Your task to perform on an android device: Go to Google maps Image 0: 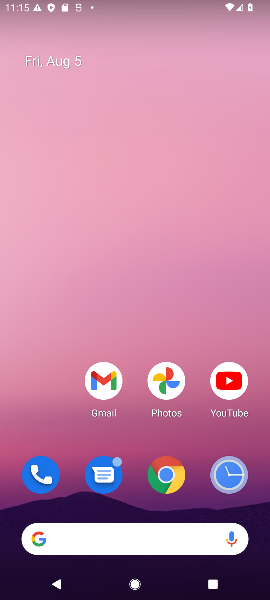
Step 0: drag from (119, 519) to (161, 119)
Your task to perform on an android device: Go to Google maps Image 1: 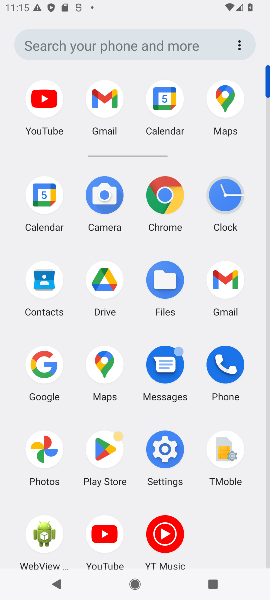
Step 1: click (111, 377)
Your task to perform on an android device: Go to Google maps Image 2: 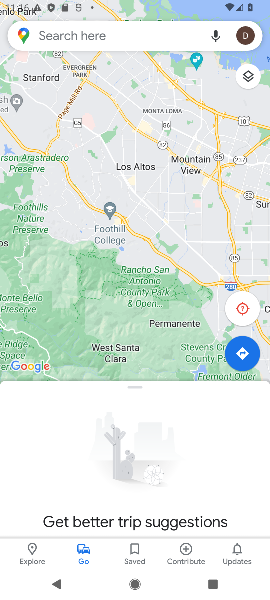
Step 2: task complete